Your task to perform on an android device: read, delete, or share a saved page in the chrome app Image 0: 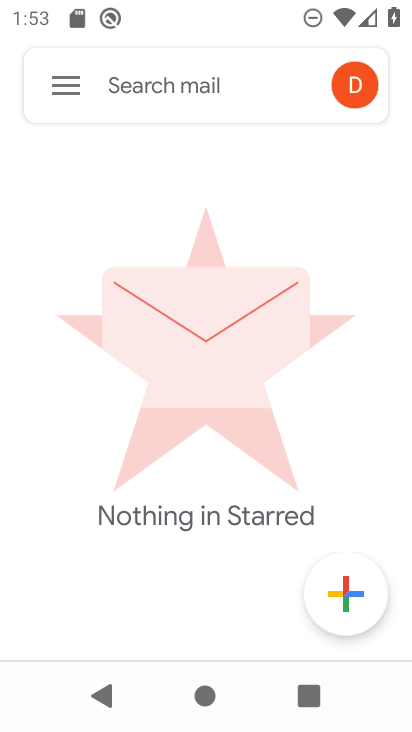
Step 0: press home button
Your task to perform on an android device: read, delete, or share a saved page in the chrome app Image 1: 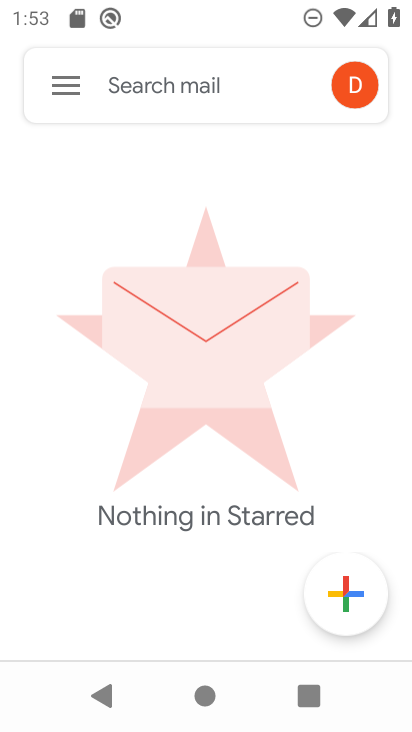
Step 1: press home button
Your task to perform on an android device: read, delete, or share a saved page in the chrome app Image 2: 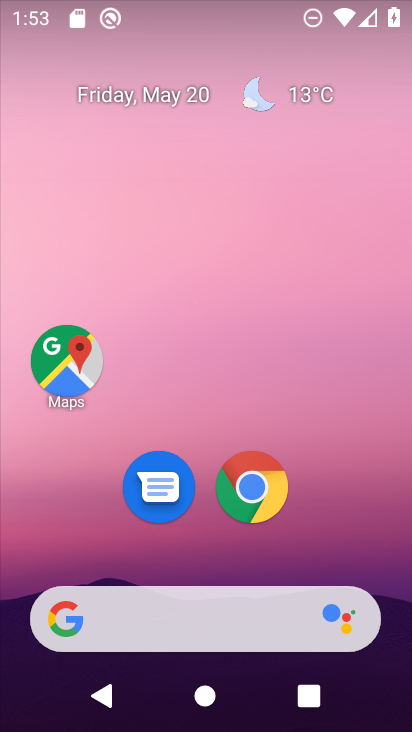
Step 2: click (255, 490)
Your task to perform on an android device: read, delete, or share a saved page in the chrome app Image 3: 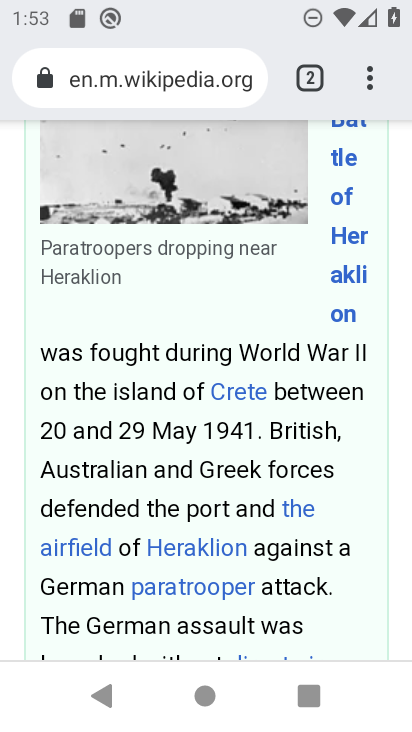
Step 3: click (363, 76)
Your task to perform on an android device: read, delete, or share a saved page in the chrome app Image 4: 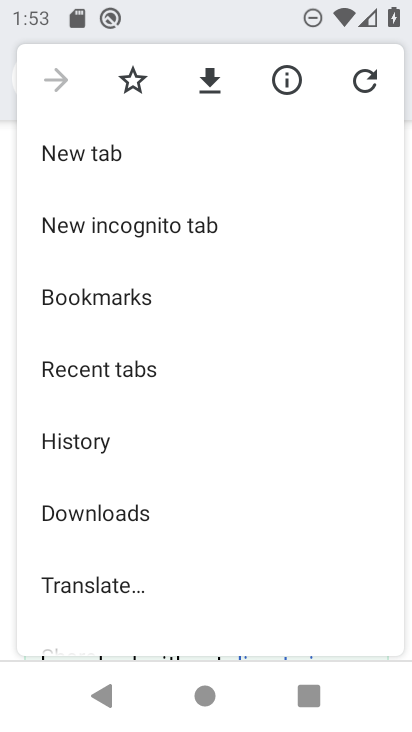
Step 4: click (158, 503)
Your task to perform on an android device: read, delete, or share a saved page in the chrome app Image 5: 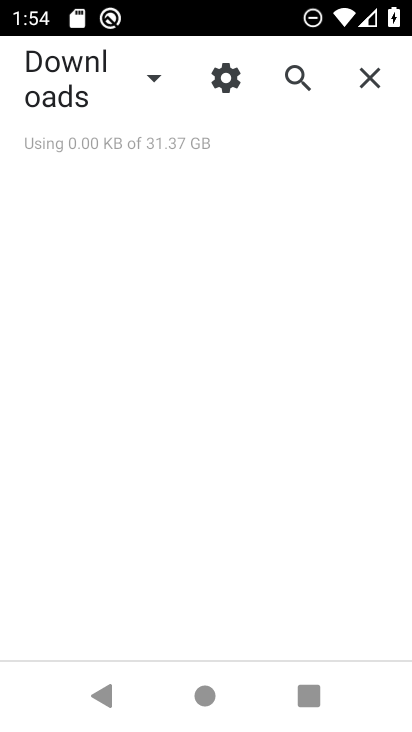
Step 5: task complete